Your task to perform on an android device: Do I have any events tomorrow? Image 0: 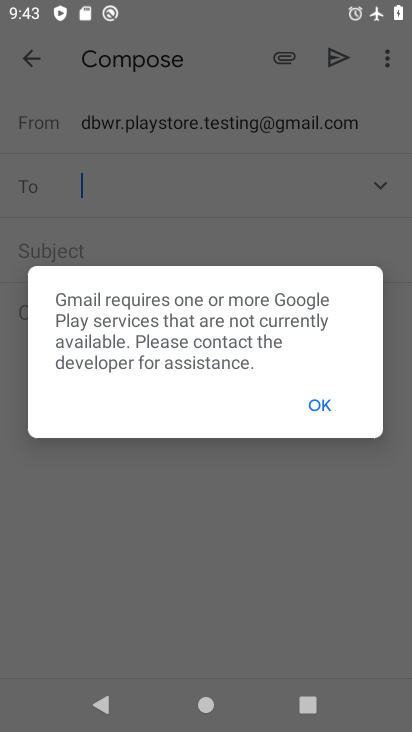
Step 0: click (305, 404)
Your task to perform on an android device: Do I have any events tomorrow? Image 1: 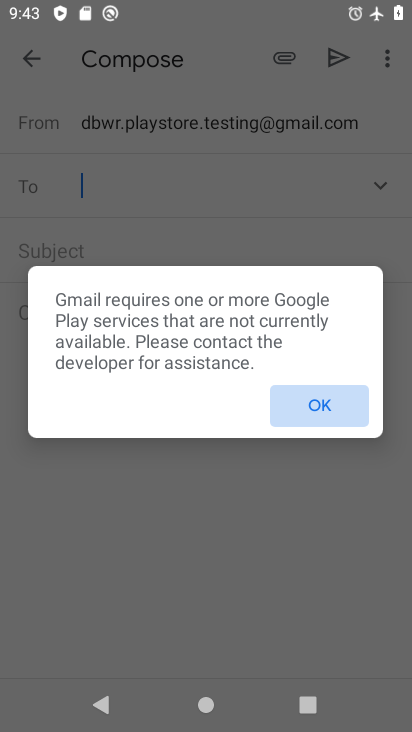
Step 1: click (310, 402)
Your task to perform on an android device: Do I have any events tomorrow? Image 2: 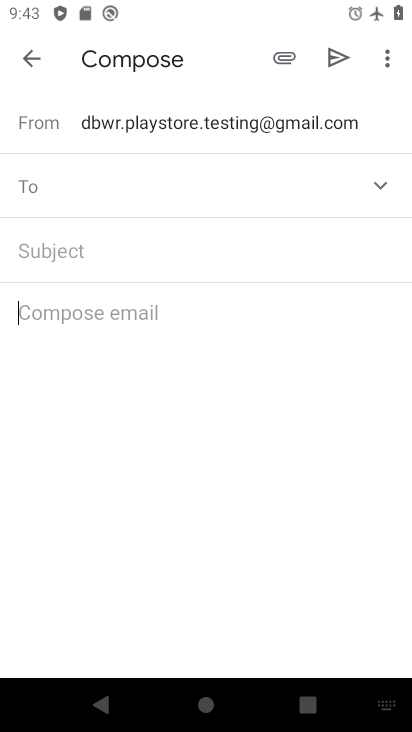
Step 2: click (17, 64)
Your task to perform on an android device: Do I have any events tomorrow? Image 3: 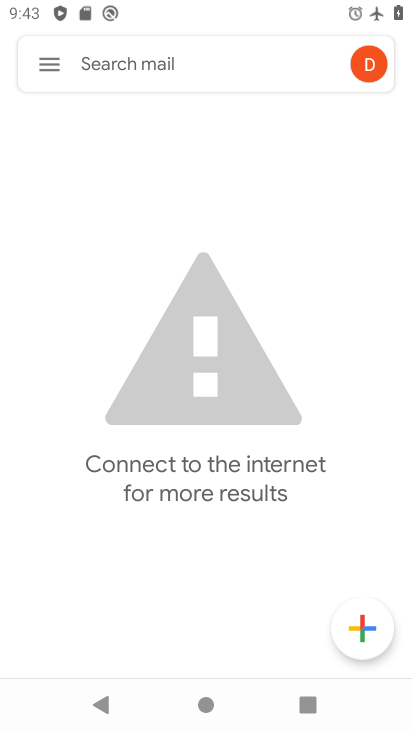
Step 3: press back button
Your task to perform on an android device: Do I have any events tomorrow? Image 4: 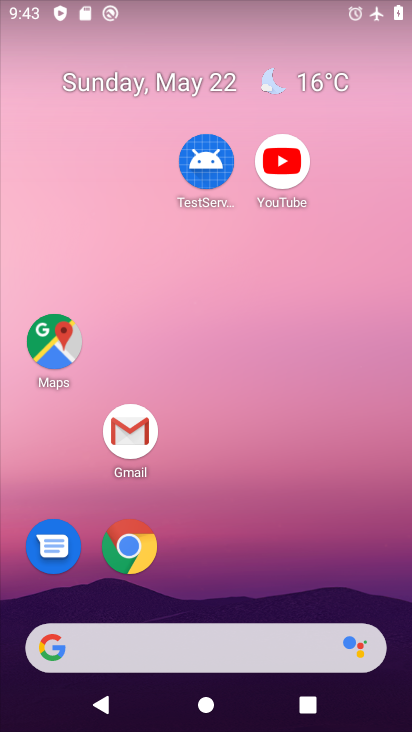
Step 4: drag from (274, 685) to (127, 55)
Your task to perform on an android device: Do I have any events tomorrow? Image 5: 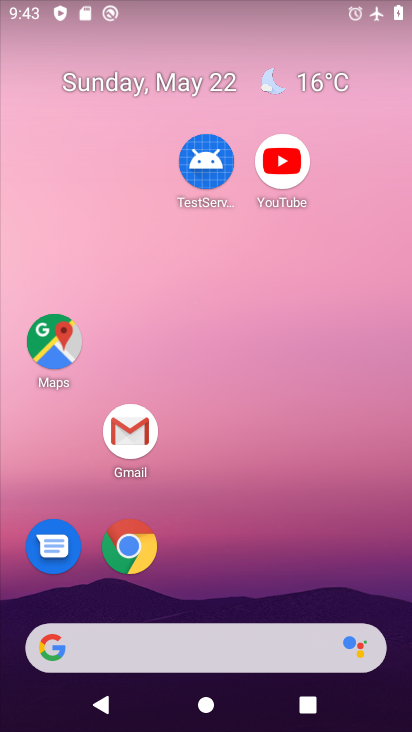
Step 5: drag from (256, 690) to (162, 144)
Your task to perform on an android device: Do I have any events tomorrow? Image 6: 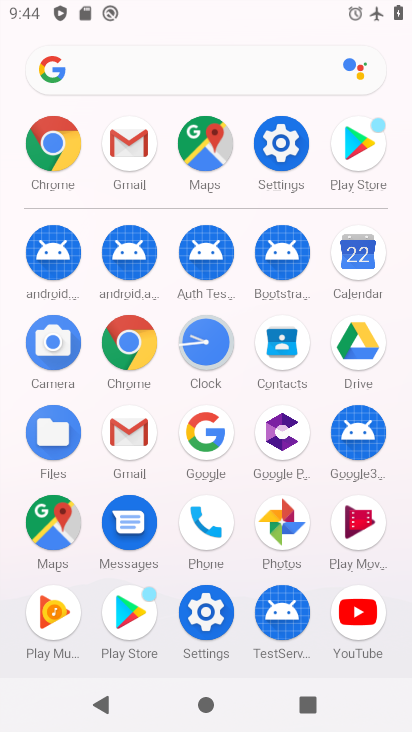
Step 6: click (354, 261)
Your task to perform on an android device: Do I have any events tomorrow? Image 7: 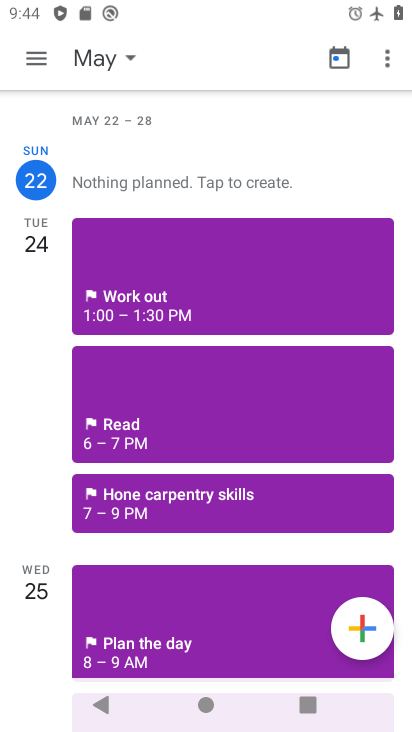
Step 7: click (129, 260)
Your task to perform on an android device: Do I have any events tomorrow? Image 8: 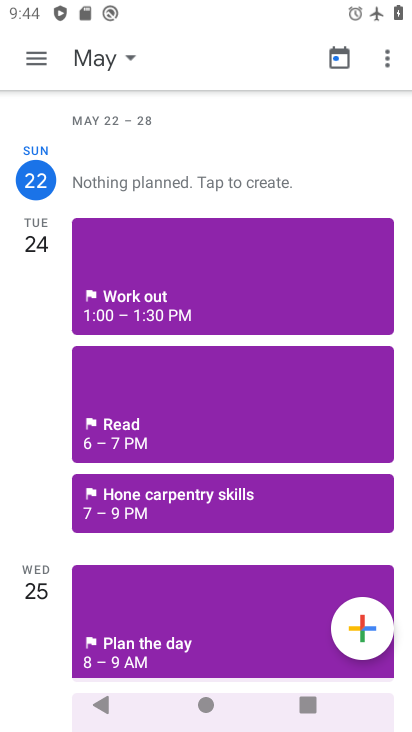
Step 8: click (133, 272)
Your task to perform on an android device: Do I have any events tomorrow? Image 9: 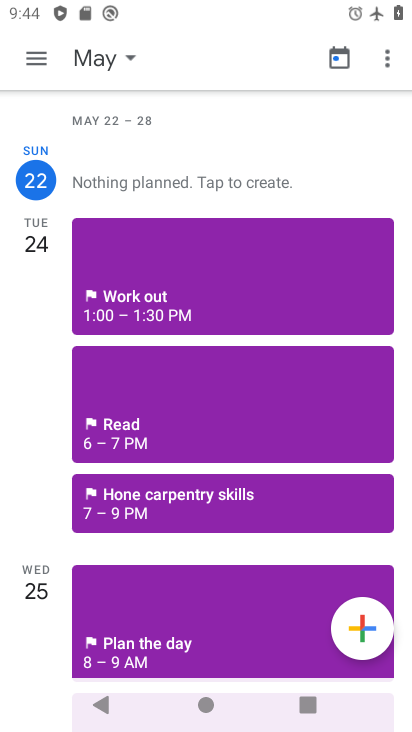
Step 9: click (156, 269)
Your task to perform on an android device: Do I have any events tomorrow? Image 10: 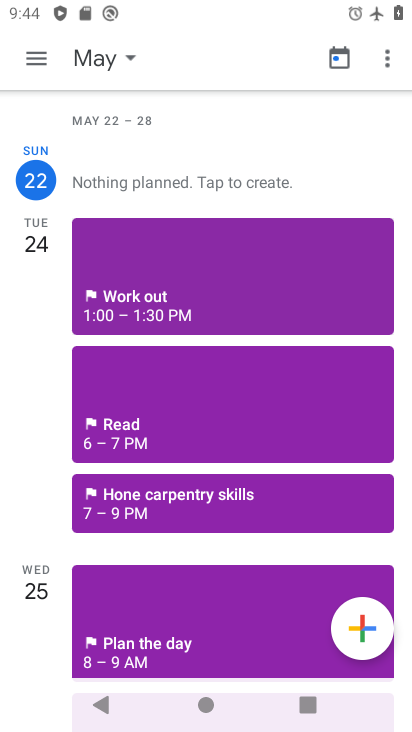
Step 10: click (173, 273)
Your task to perform on an android device: Do I have any events tomorrow? Image 11: 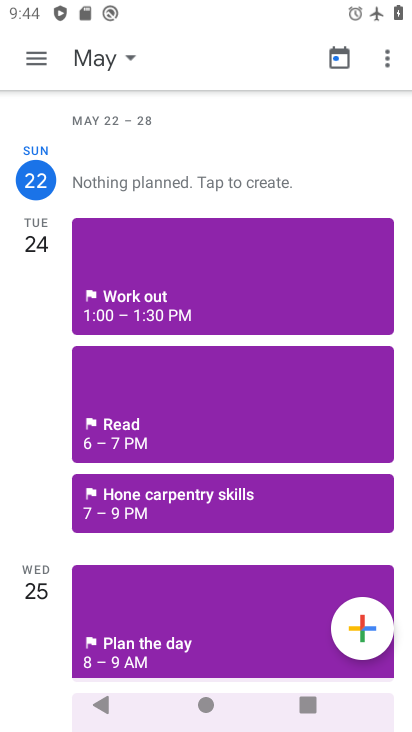
Step 11: click (176, 283)
Your task to perform on an android device: Do I have any events tomorrow? Image 12: 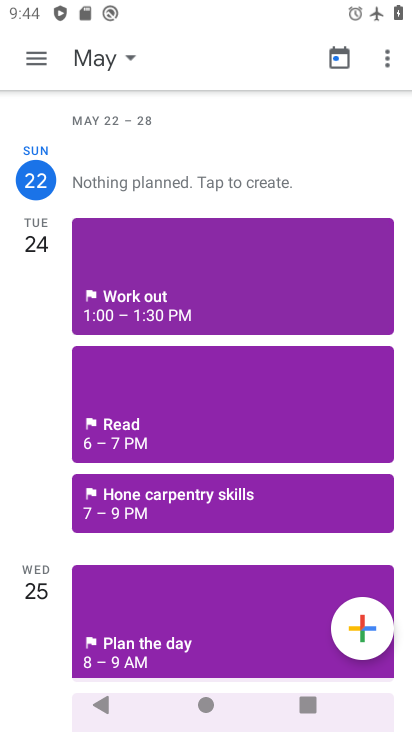
Step 12: click (177, 287)
Your task to perform on an android device: Do I have any events tomorrow? Image 13: 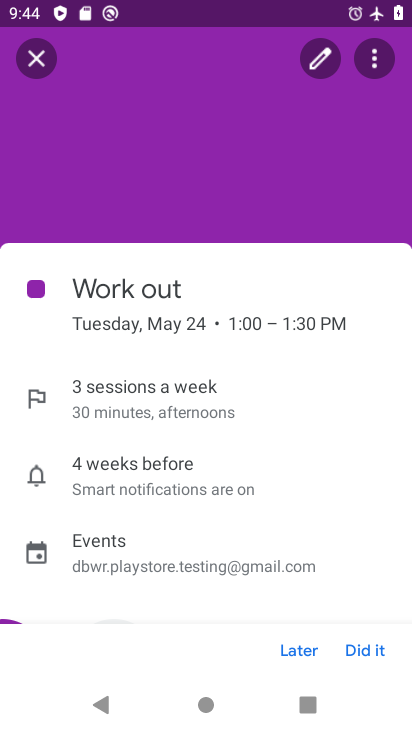
Step 13: click (176, 280)
Your task to perform on an android device: Do I have any events tomorrow? Image 14: 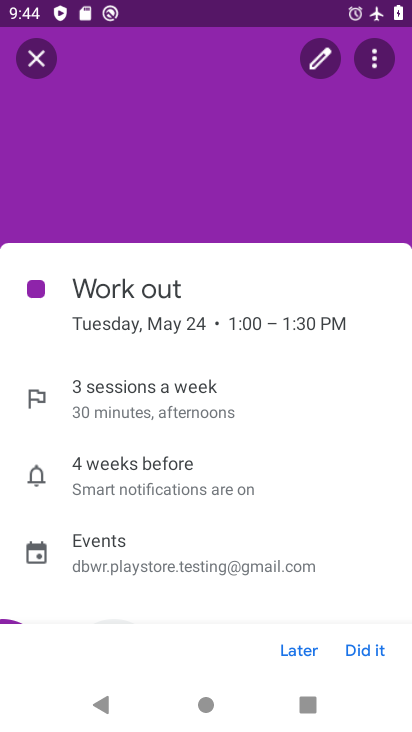
Step 14: task complete